Your task to perform on an android device: Go to Google maps Image 0: 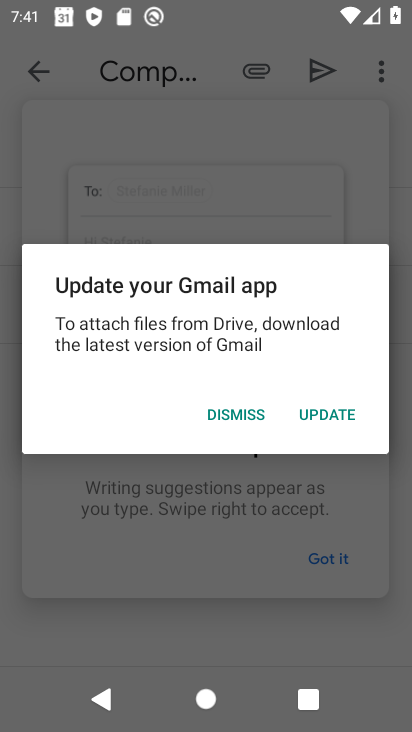
Step 0: press home button
Your task to perform on an android device: Go to Google maps Image 1: 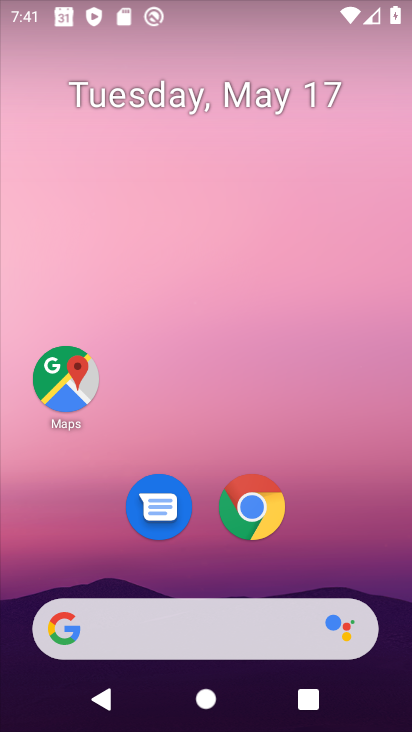
Step 1: click (56, 385)
Your task to perform on an android device: Go to Google maps Image 2: 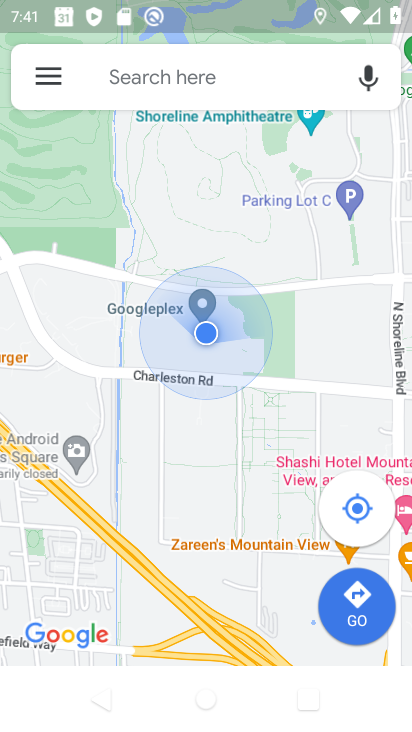
Step 2: task complete